Your task to perform on an android device: What's the weather going to be this weekend? Image 0: 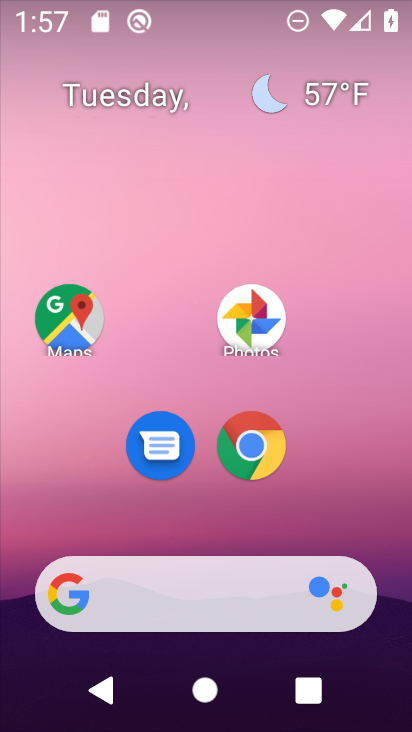
Step 0: click (243, 592)
Your task to perform on an android device: What's the weather going to be this weekend? Image 1: 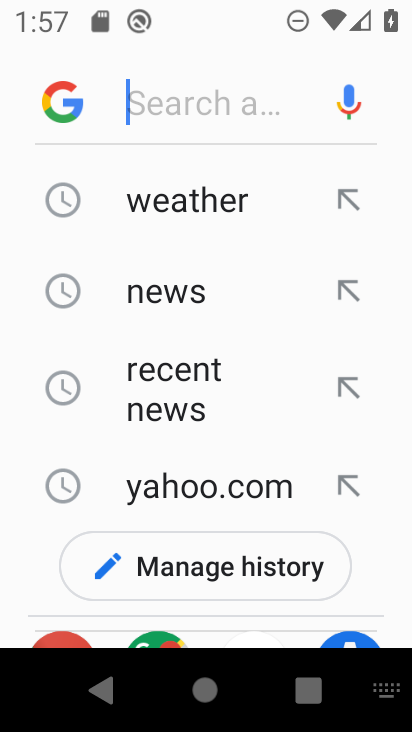
Step 1: click (215, 202)
Your task to perform on an android device: What's the weather going to be this weekend? Image 2: 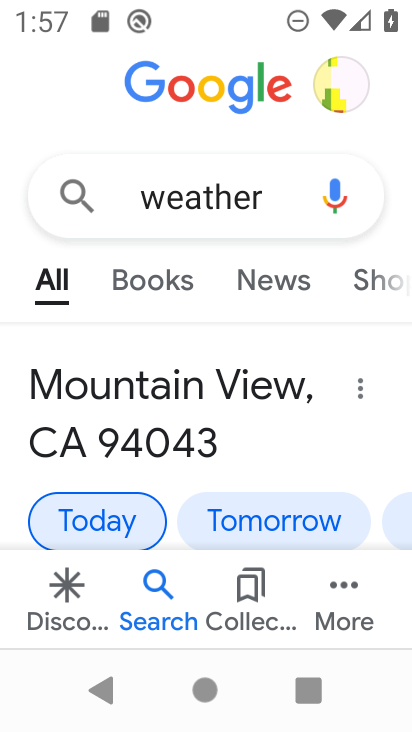
Step 2: click (403, 521)
Your task to perform on an android device: What's the weather going to be this weekend? Image 3: 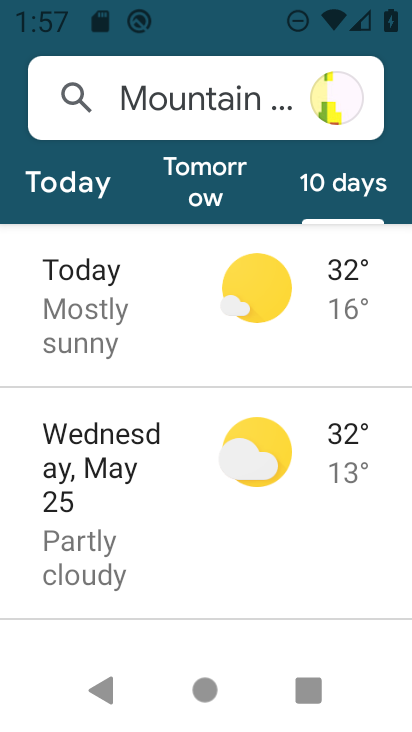
Step 3: task complete